Your task to perform on an android device: delete browsing data in the chrome app Image 0: 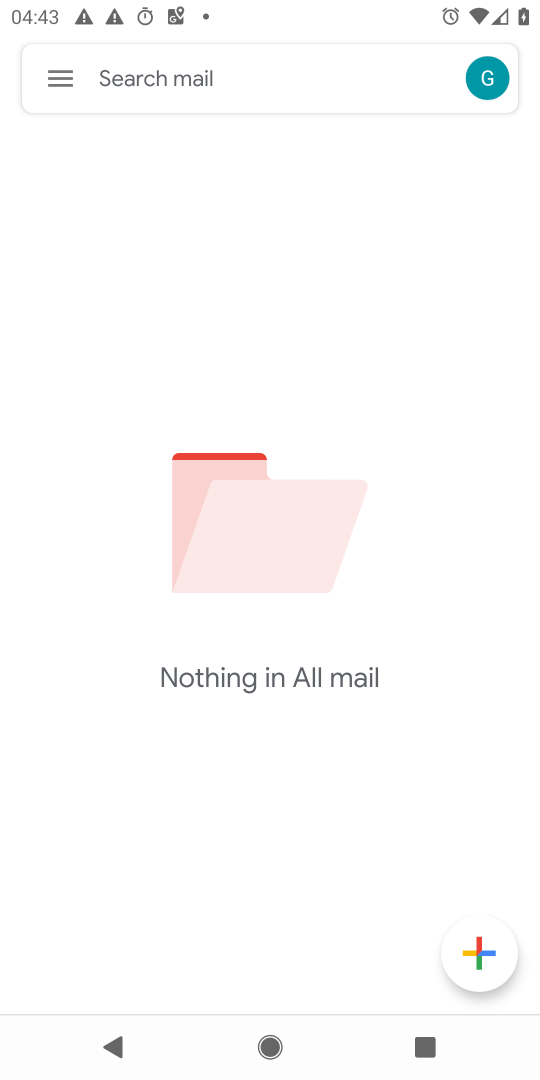
Step 0: press home button
Your task to perform on an android device: delete browsing data in the chrome app Image 1: 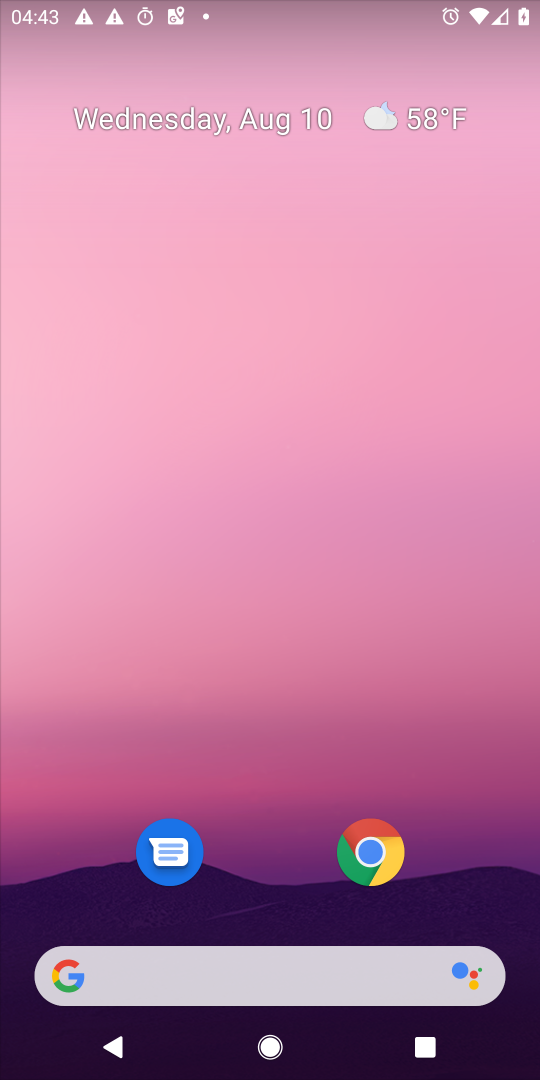
Step 1: drag from (306, 789) to (179, 76)
Your task to perform on an android device: delete browsing data in the chrome app Image 2: 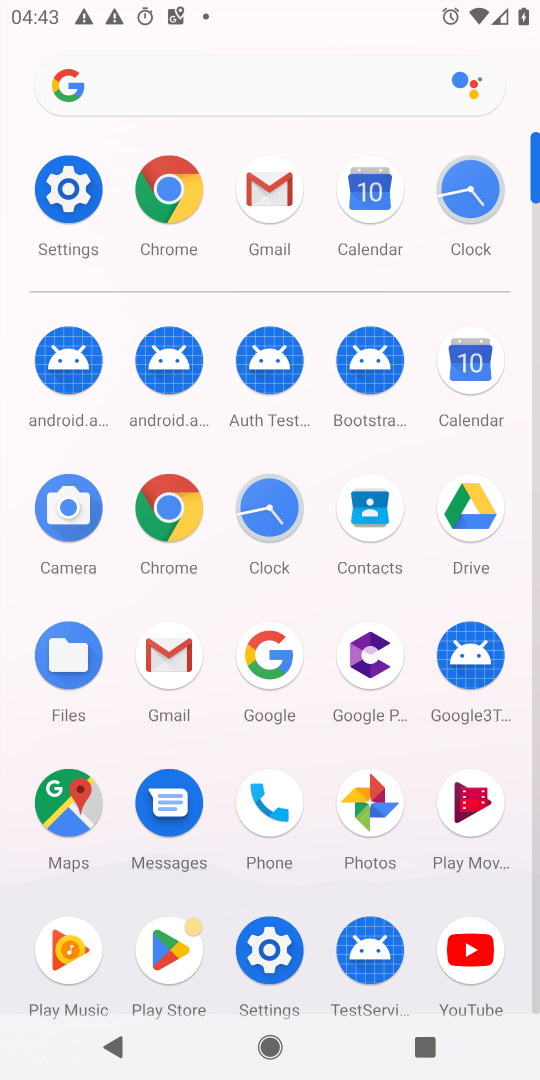
Step 2: click (164, 499)
Your task to perform on an android device: delete browsing data in the chrome app Image 3: 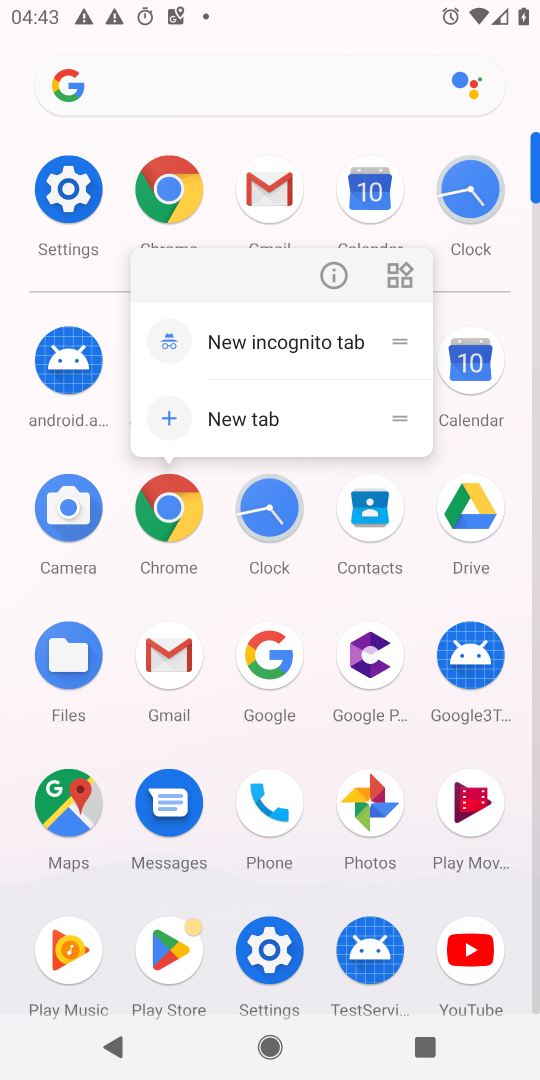
Step 3: click (170, 503)
Your task to perform on an android device: delete browsing data in the chrome app Image 4: 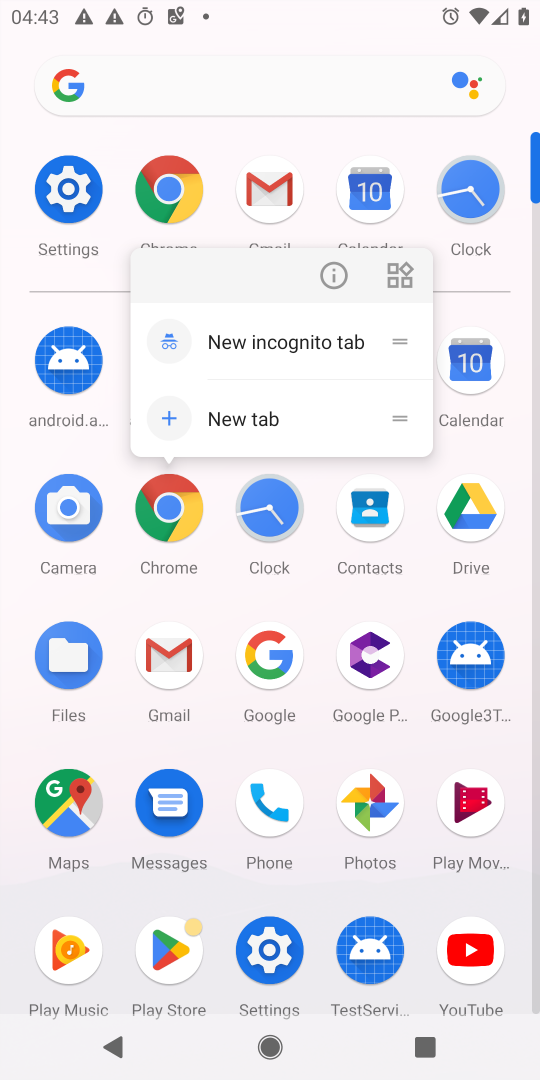
Step 4: click (173, 509)
Your task to perform on an android device: delete browsing data in the chrome app Image 5: 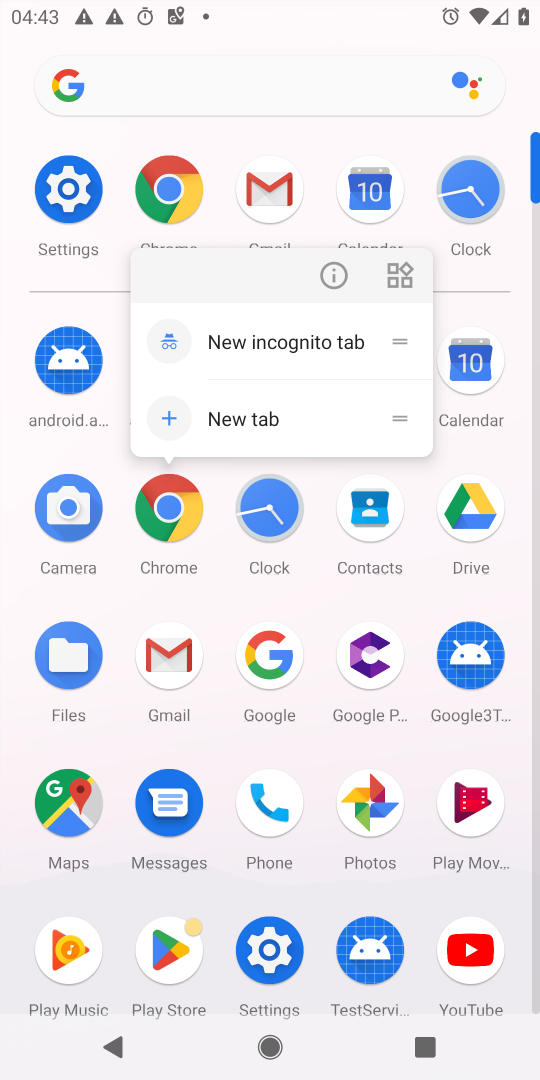
Step 5: click (174, 511)
Your task to perform on an android device: delete browsing data in the chrome app Image 6: 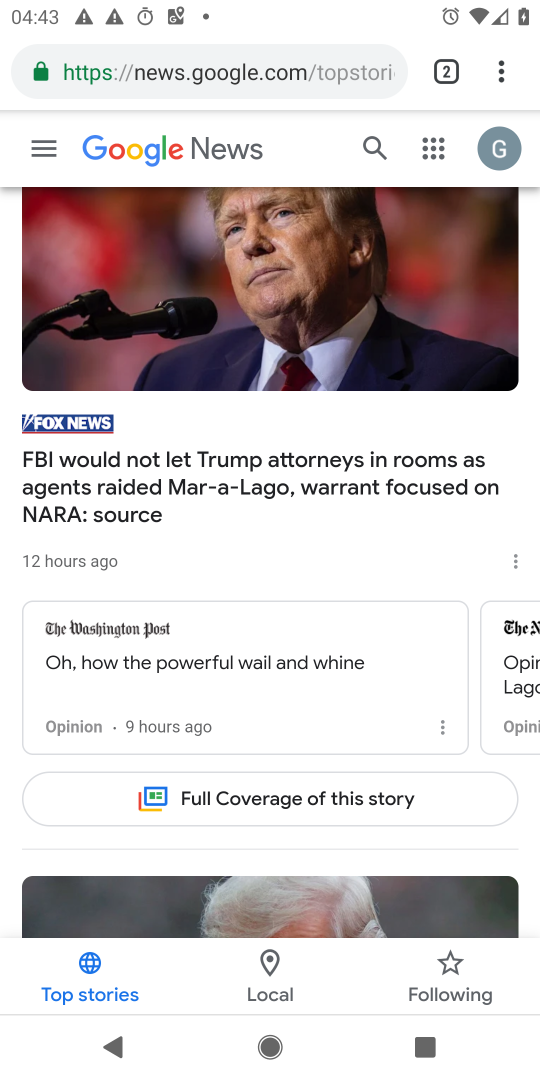
Step 6: drag from (505, 65) to (274, 400)
Your task to perform on an android device: delete browsing data in the chrome app Image 7: 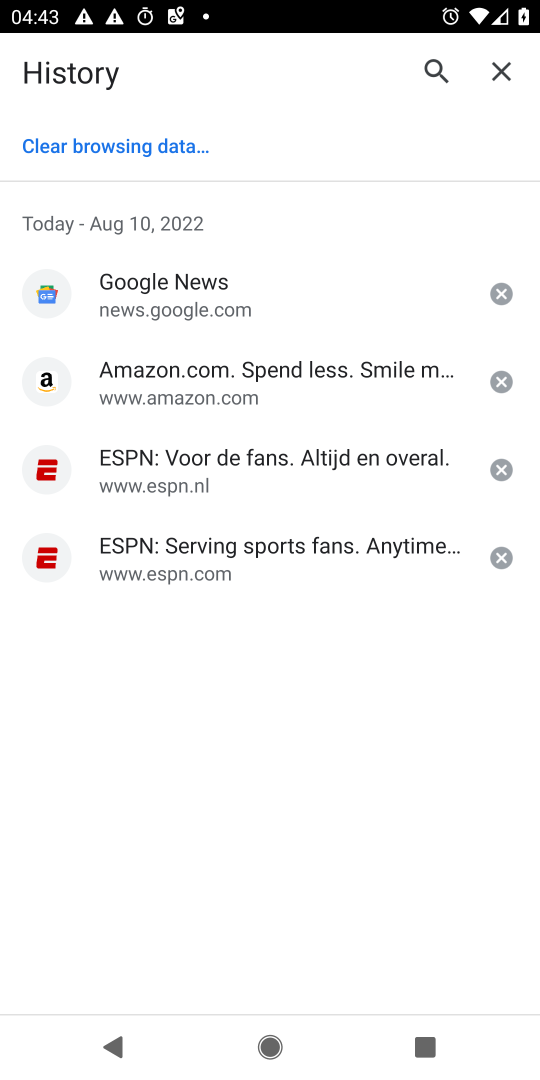
Step 7: click (148, 134)
Your task to perform on an android device: delete browsing data in the chrome app Image 8: 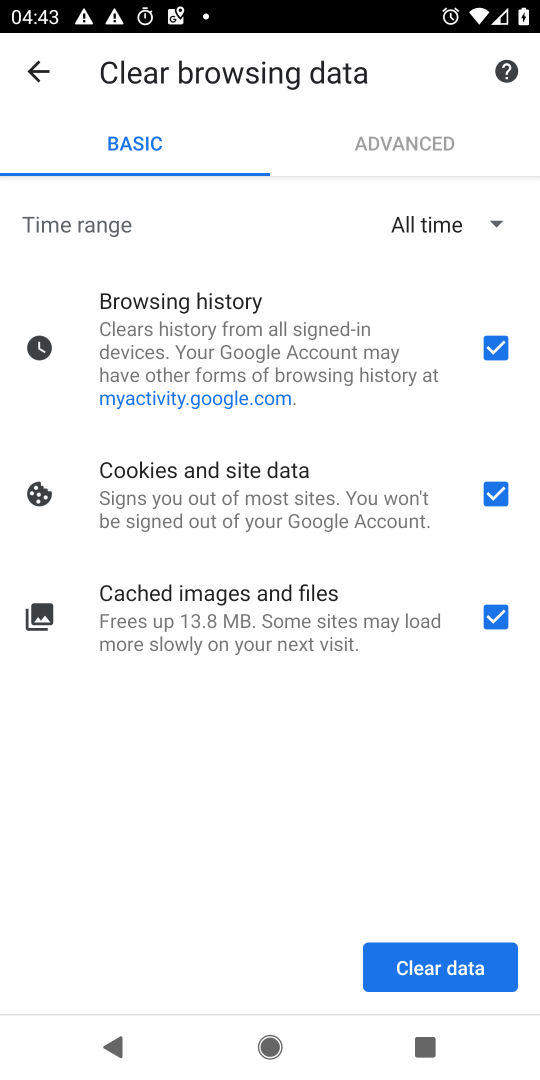
Step 8: click (427, 972)
Your task to perform on an android device: delete browsing data in the chrome app Image 9: 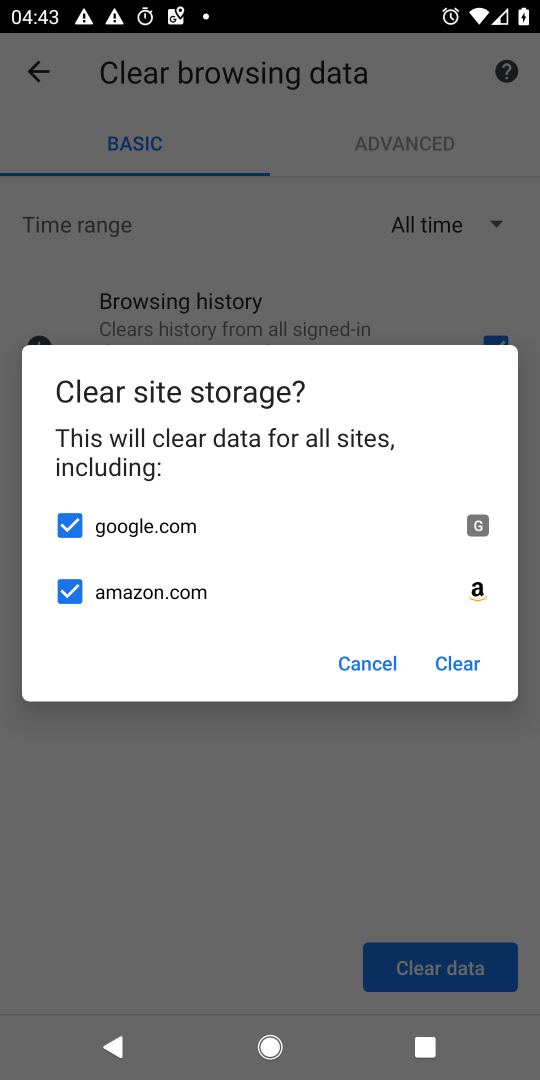
Step 9: click (460, 661)
Your task to perform on an android device: delete browsing data in the chrome app Image 10: 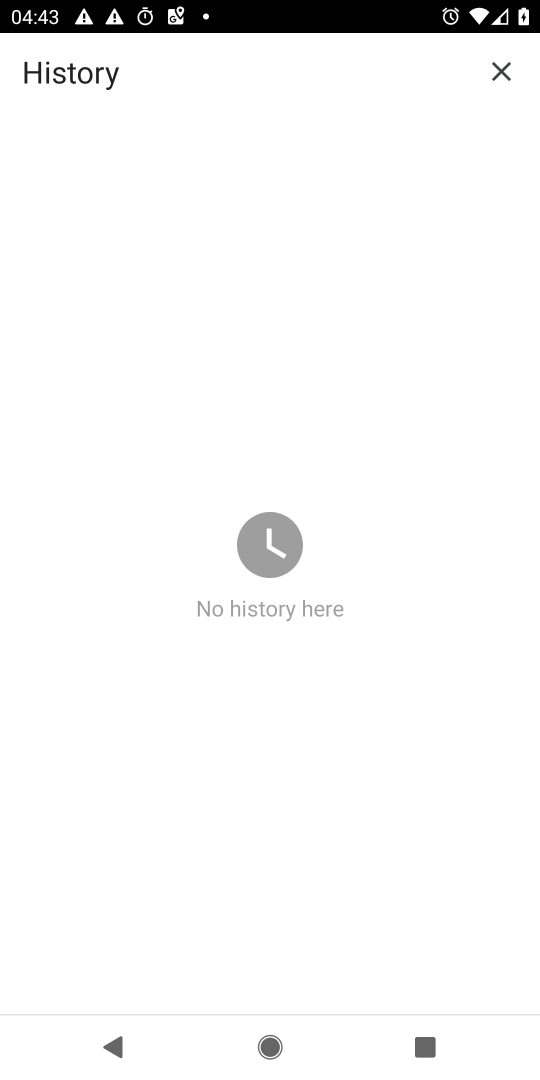
Step 10: task complete